Your task to perform on an android device: snooze an email in the gmail app Image 0: 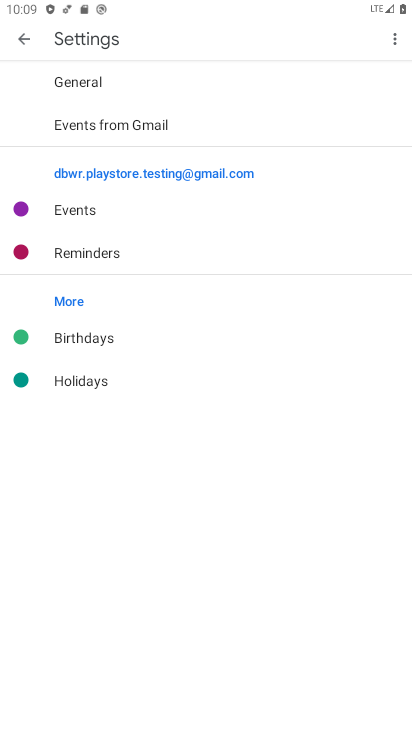
Step 0: press home button
Your task to perform on an android device: snooze an email in the gmail app Image 1: 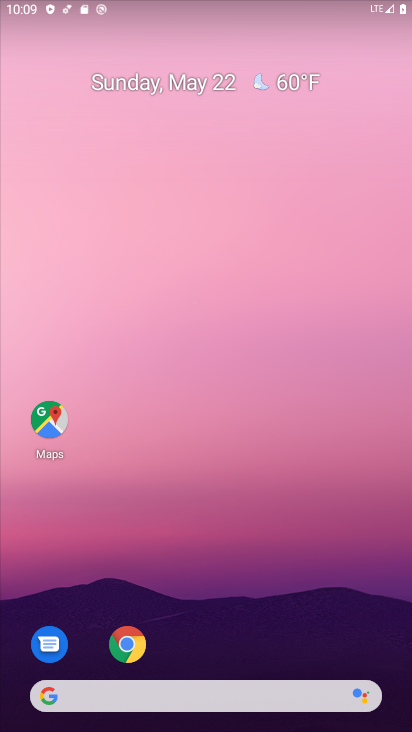
Step 1: drag from (233, 679) to (227, 236)
Your task to perform on an android device: snooze an email in the gmail app Image 2: 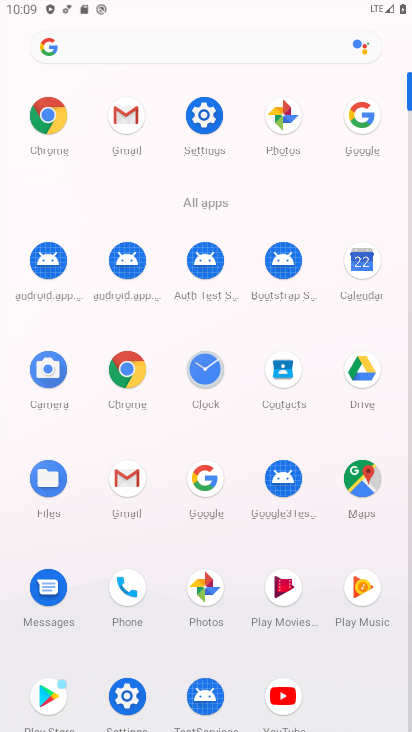
Step 2: click (121, 474)
Your task to perform on an android device: snooze an email in the gmail app Image 3: 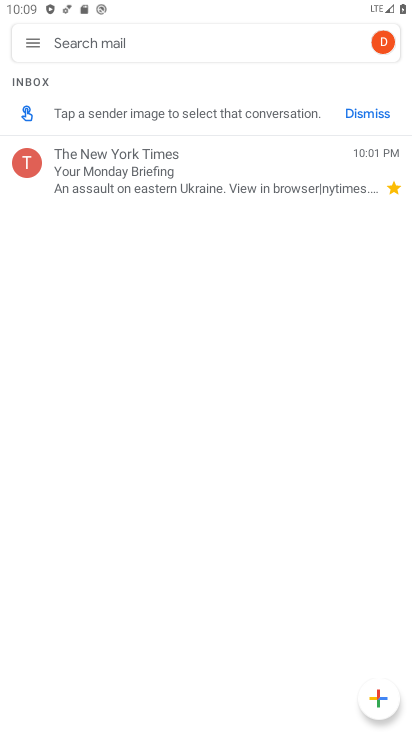
Step 3: click (129, 185)
Your task to perform on an android device: snooze an email in the gmail app Image 4: 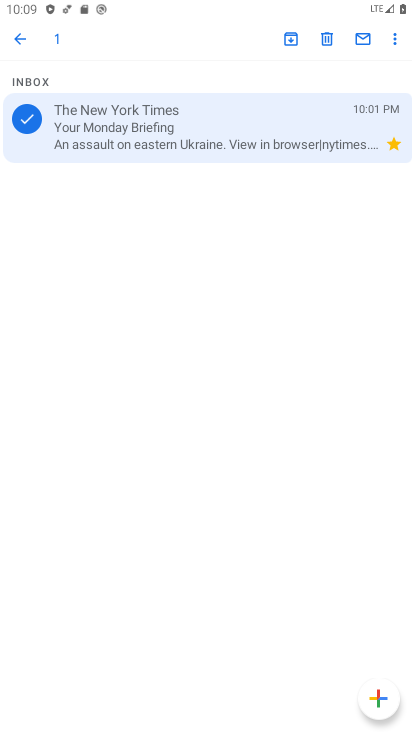
Step 4: click (395, 35)
Your task to perform on an android device: snooze an email in the gmail app Image 5: 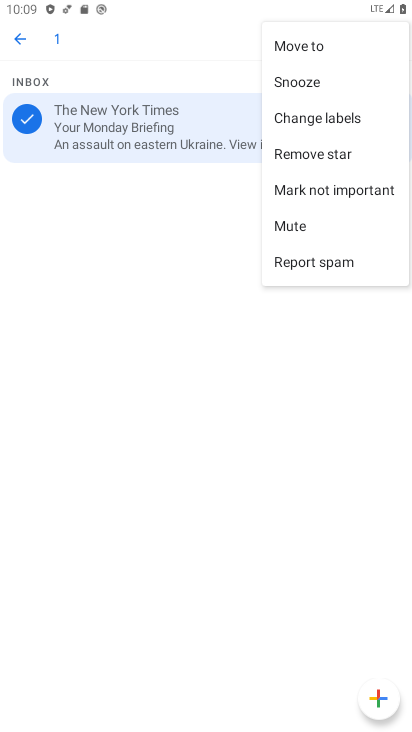
Step 5: click (305, 84)
Your task to perform on an android device: snooze an email in the gmail app Image 6: 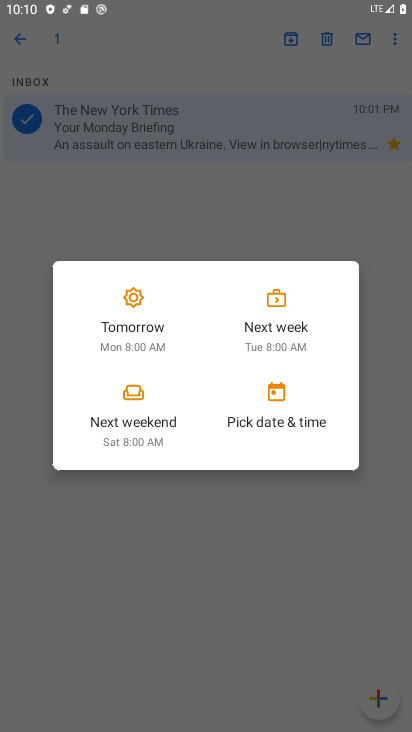
Step 6: click (138, 340)
Your task to perform on an android device: snooze an email in the gmail app Image 7: 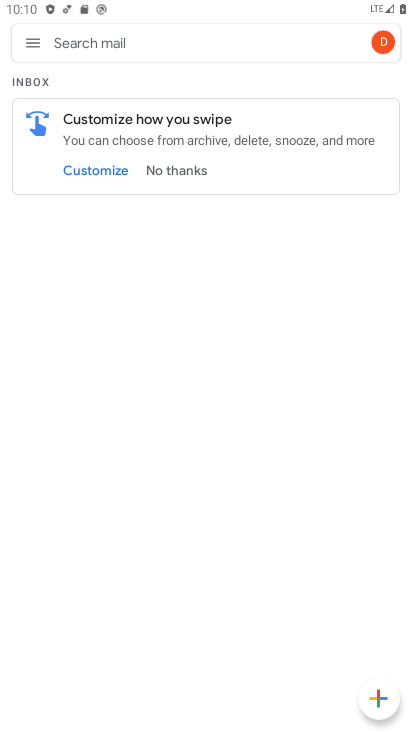
Step 7: task complete